Your task to perform on an android device: Install the Yelp app Image 0: 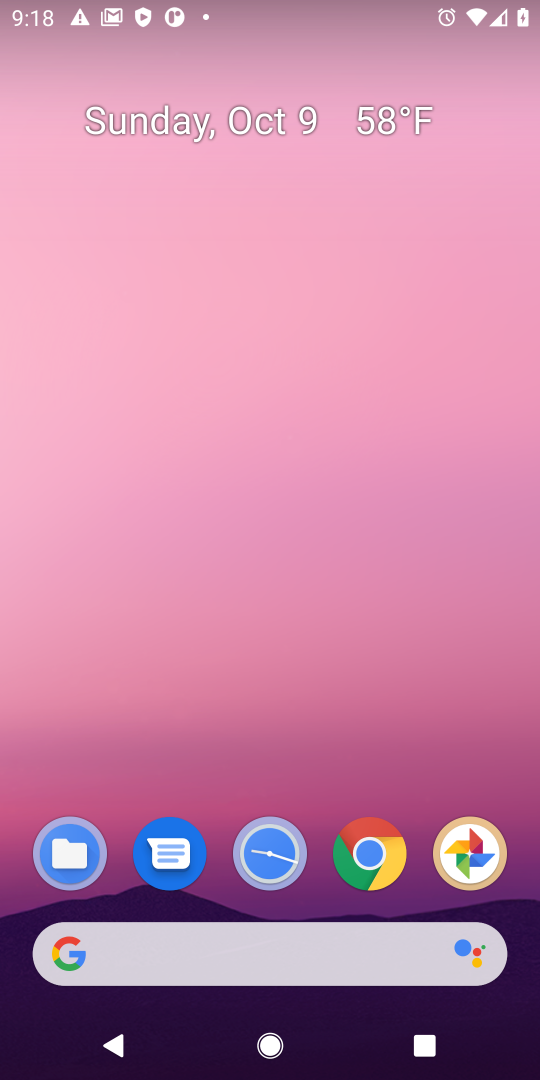
Step 0: drag from (343, 735) to (247, 73)
Your task to perform on an android device: Install the Yelp app Image 1: 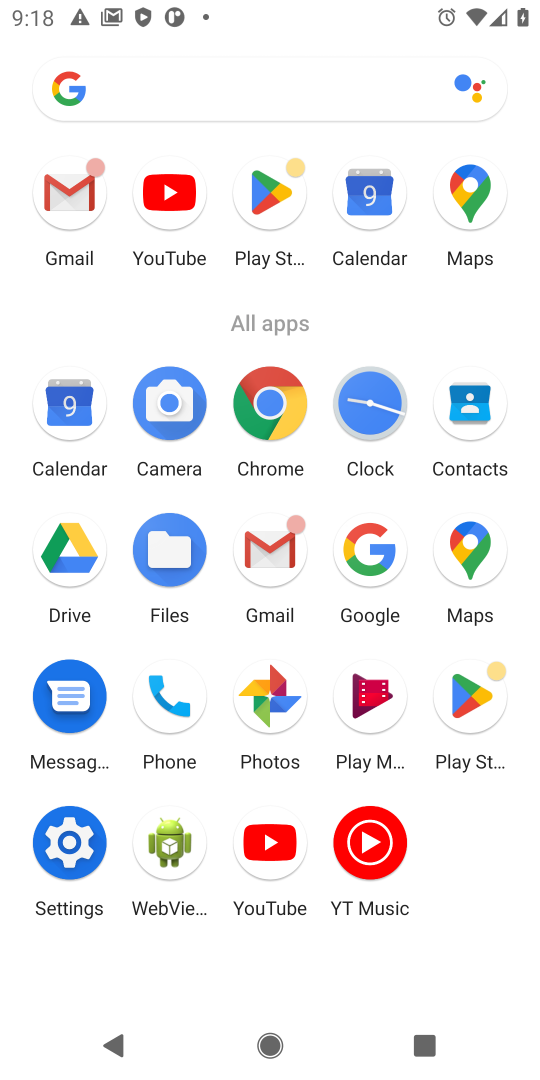
Step 1: click (479, 716)
Your task to perform on an android device: Install the Yelp app Image 2: 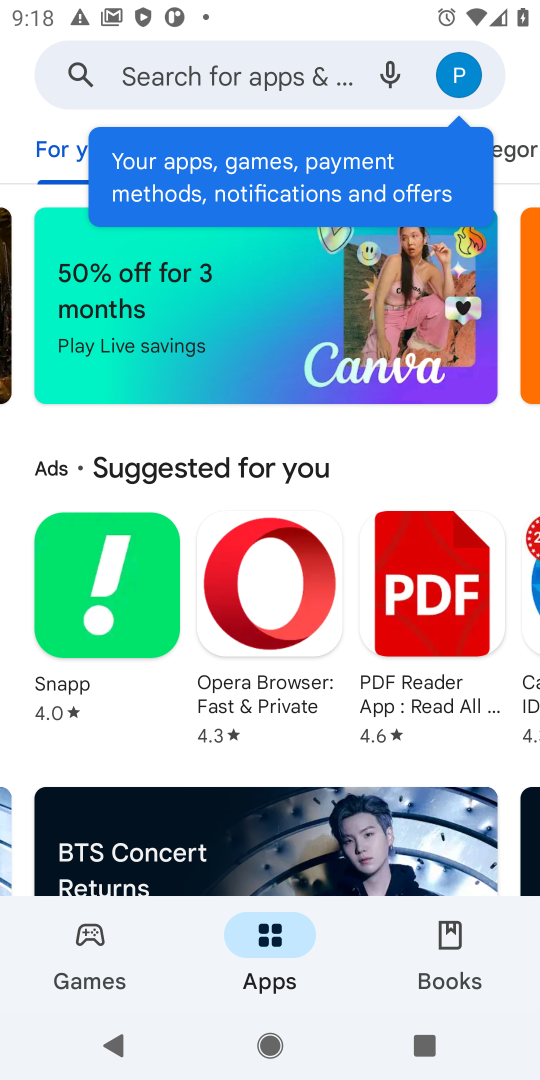
Step 2: click (230, 78)
Your task to perform on an android device: Install the Yelp app Image 3: 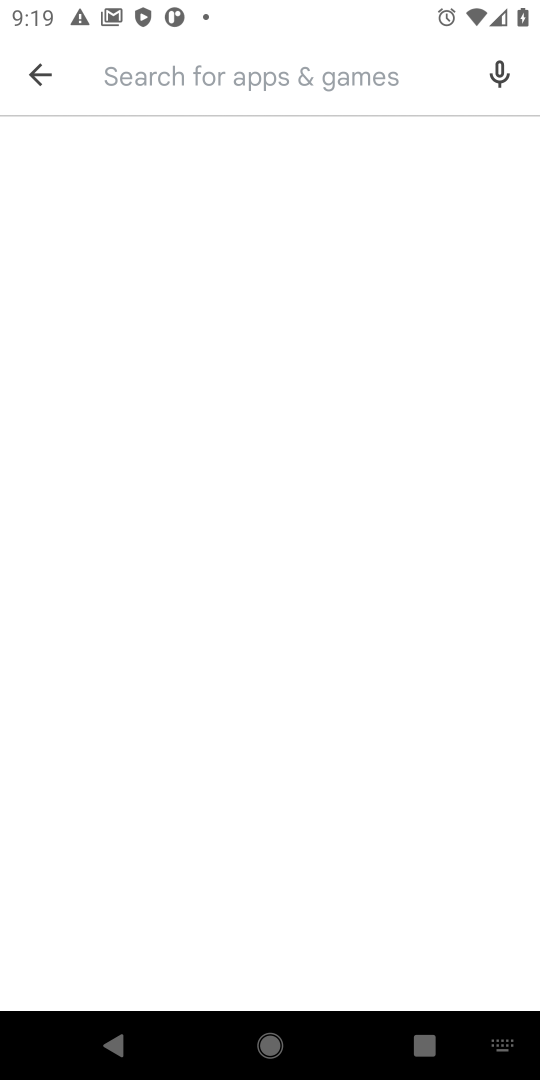
Step 3: type "yelp"
Your task to perform on an android device: Install the Yelp app Image 4: 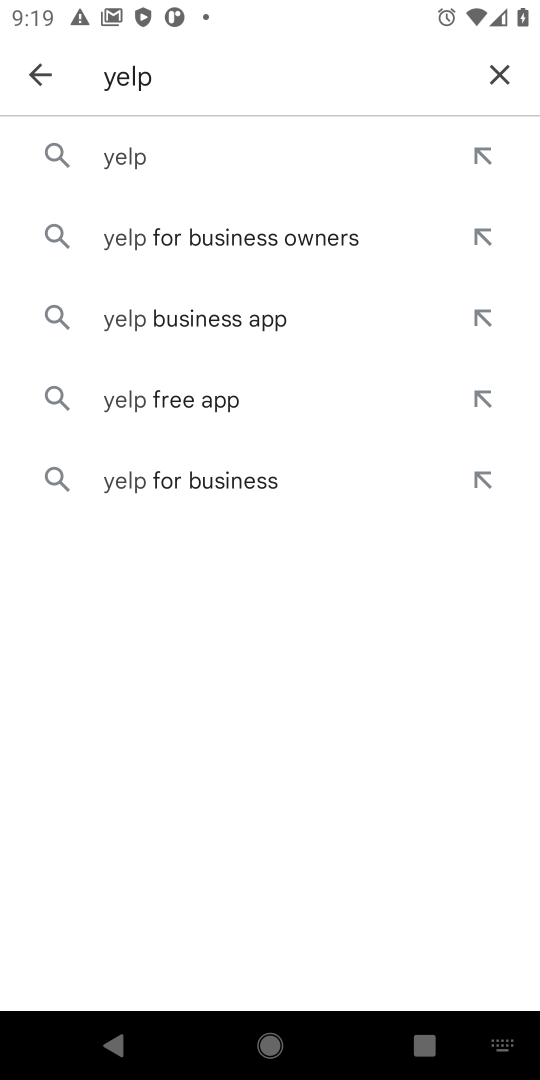
Step 4: click (281, 134)
Your task to perform on an android device: Install the Yelp app Image 5: 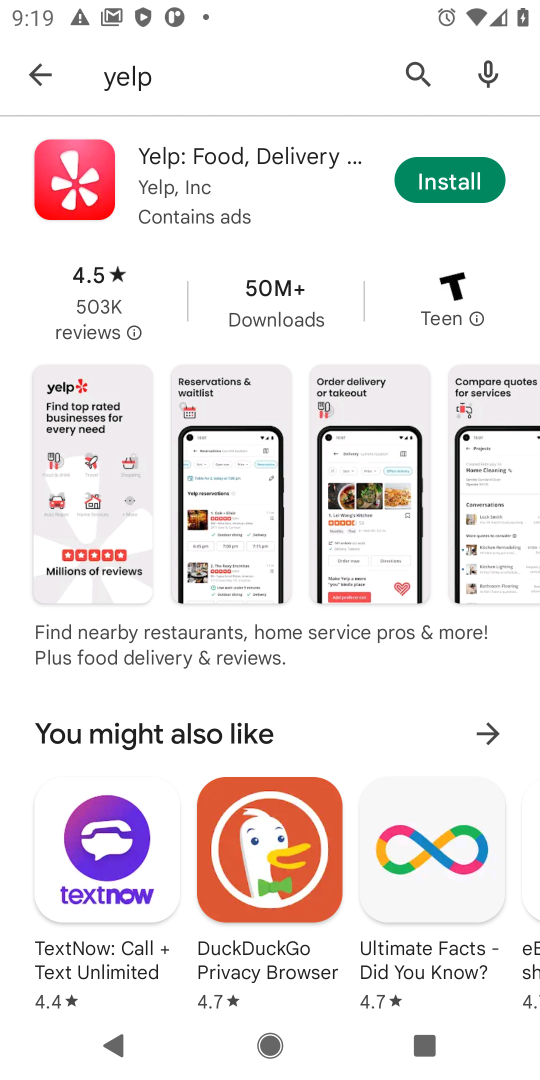
Step 5: click (427, 177)
Your task to perform on an android device: Install the Yelp app Image 6: 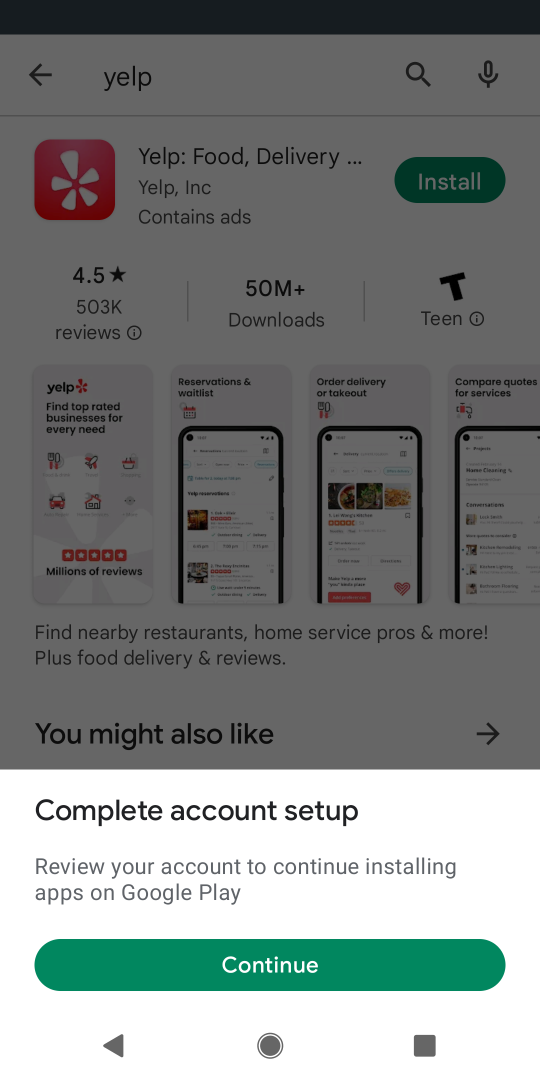
Step 6: click (331, 970)
Your task to perform on an android device: Install the Yelp app Image 7: 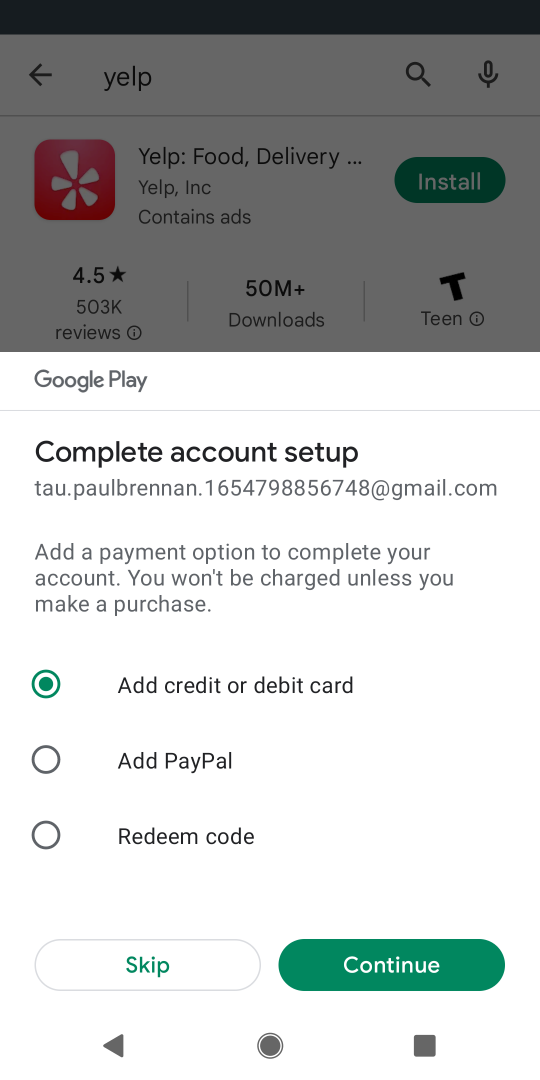
Step 7: click (197, 955)
Your task to perform on an android device: Install the Yelp app Image 8: 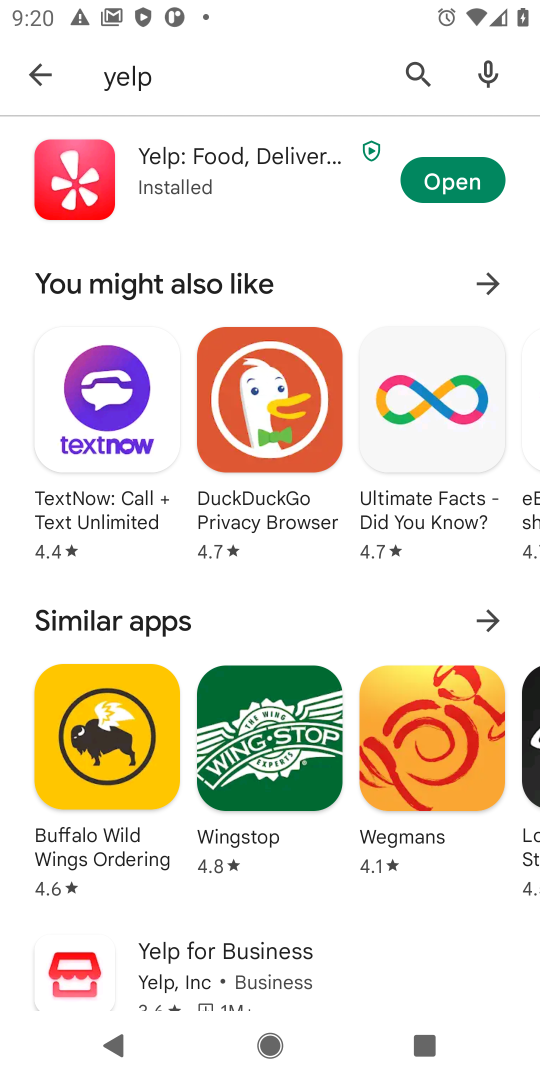
Step 8: click (472, 182)
Your task to perform on an android device: Install the Yelp app Image 9: 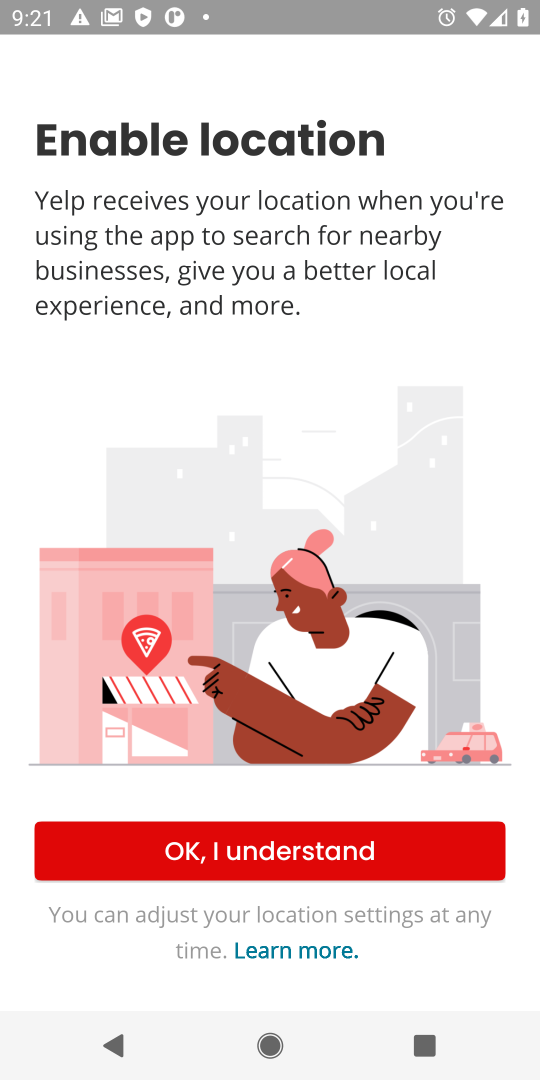
Step 9: click (327, 850)
Your task to perform on an android device: Install the Yelp app Image 10: 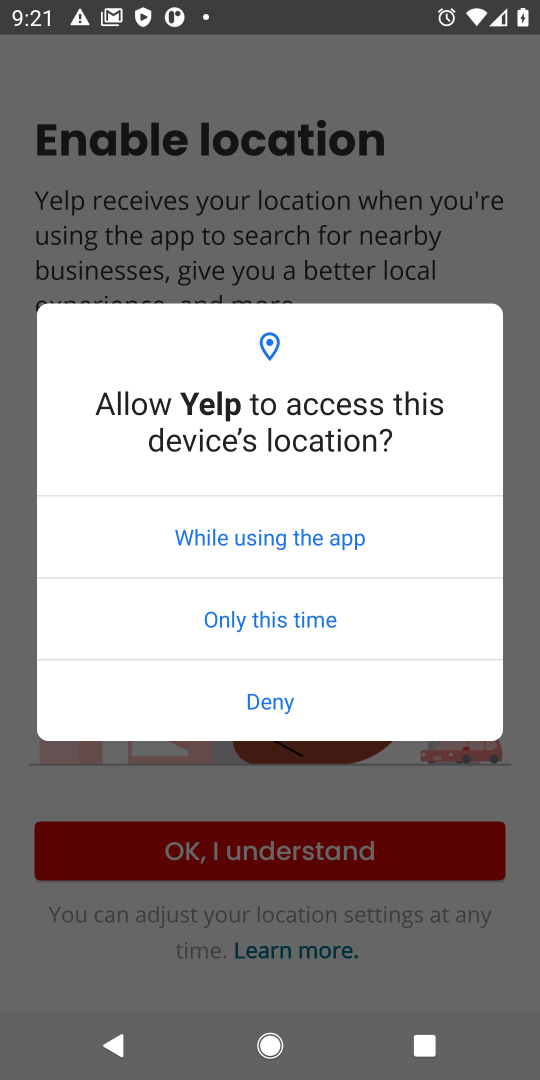
Step 10: task complete